Your task to perform on an android device: change keyboard looks Image 0: 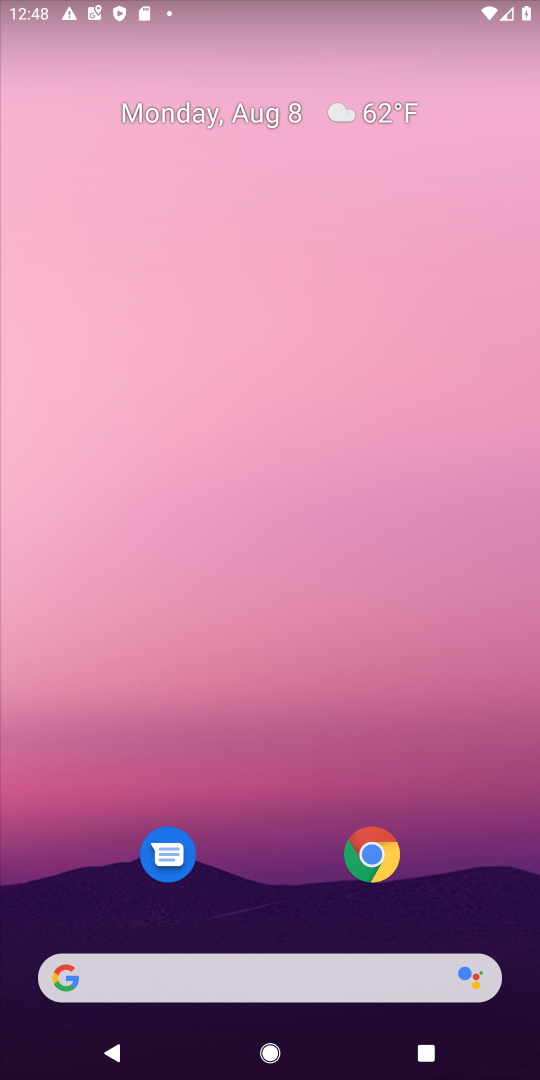
Step 0: press home button
Your task to perform on an android device: change keyboard looks Image 1: 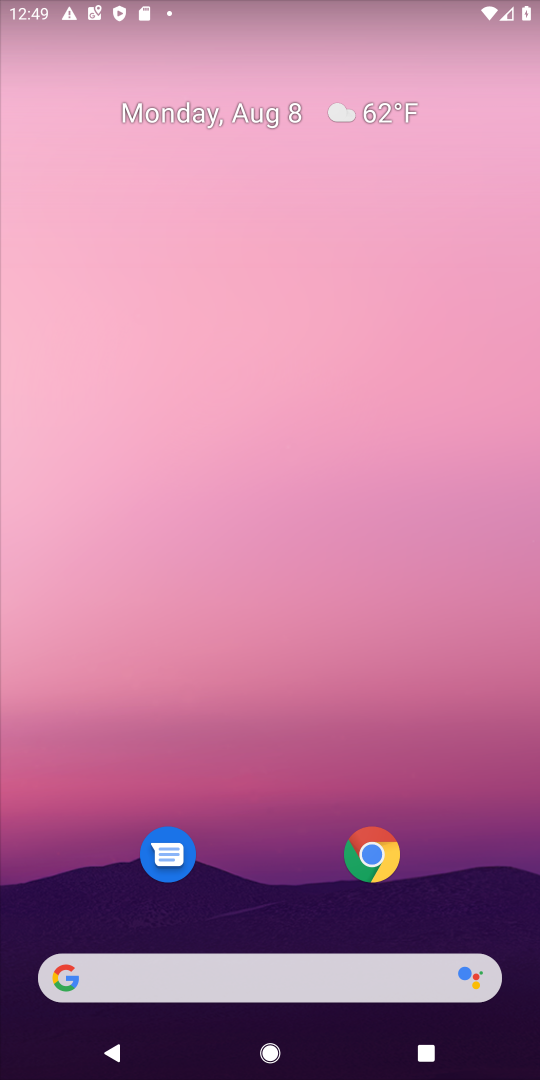
Step 1: drag from (262, 725) to (183, 149)
Your task to perform on an android device: change keyboard looks Image 2: 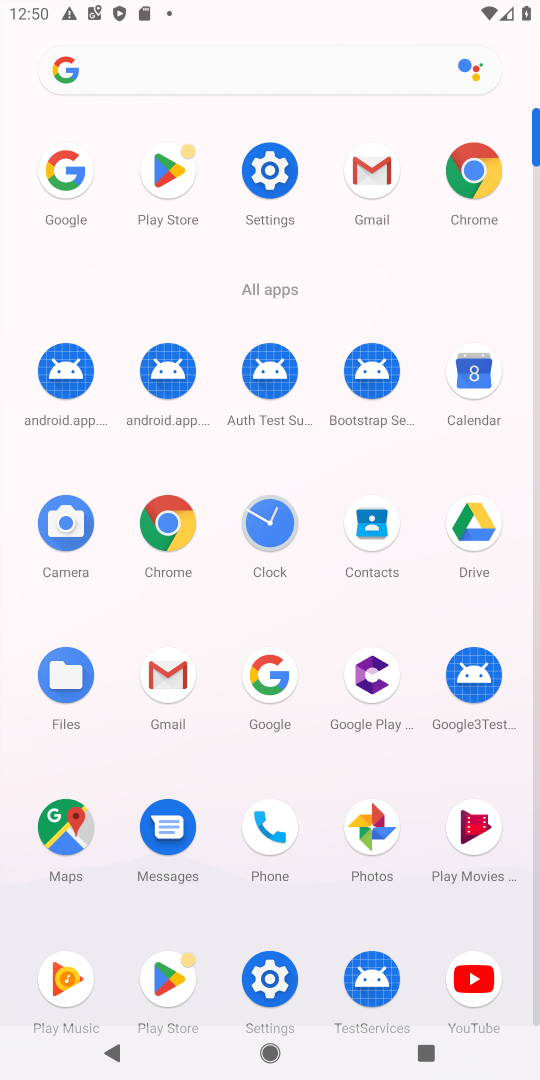
Step 2: click (271, 162)
Your task to perform on an android device: change keyboard looks Image 3: 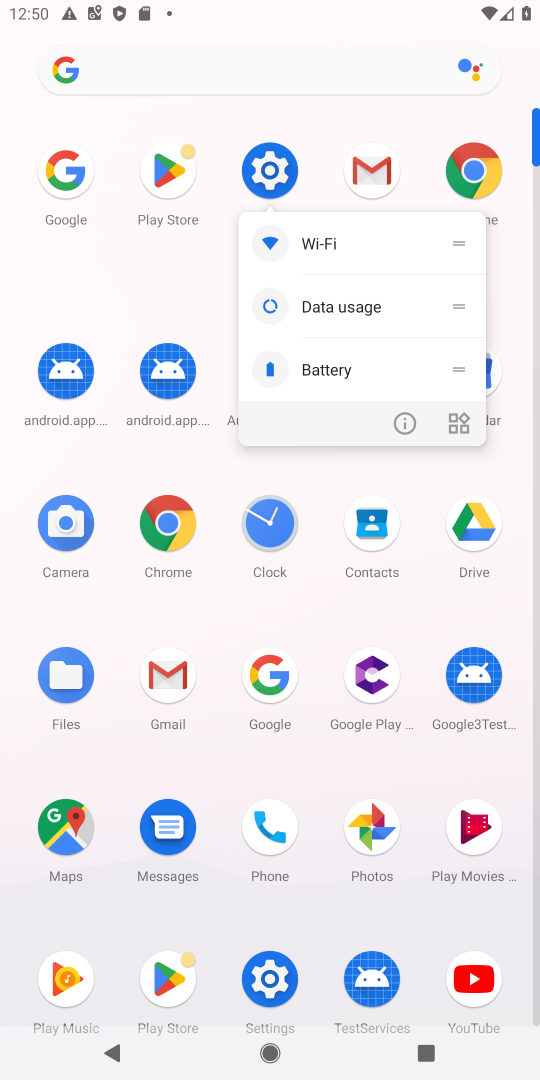
Step 3: click (277, 175)
Your task to perform on an android device: change keyboard looks Image 4: 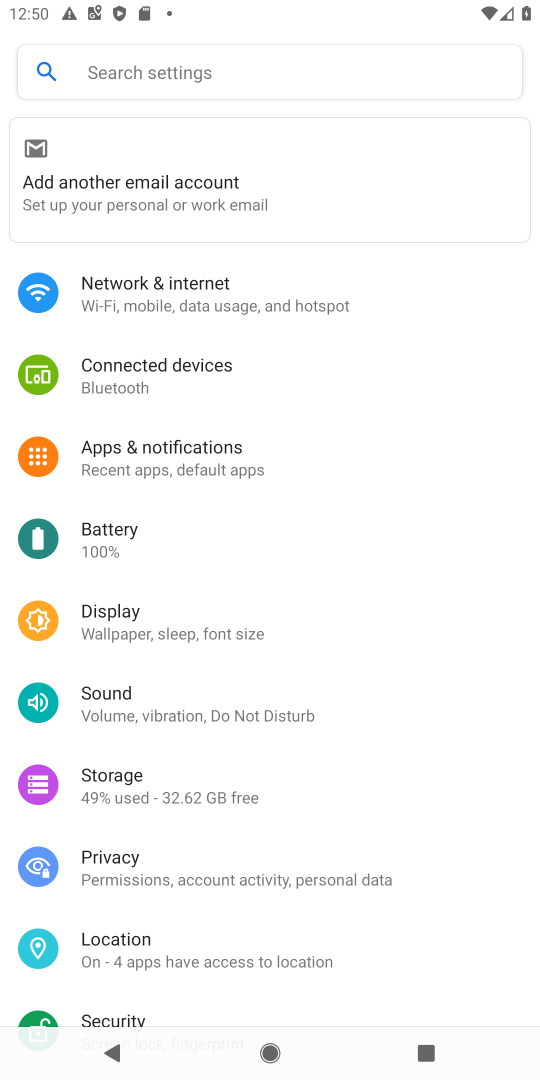
Step 4: drag from (171, 992) to (238, 386)
Your task to perform on an android device: change keyboard looks Image 5: 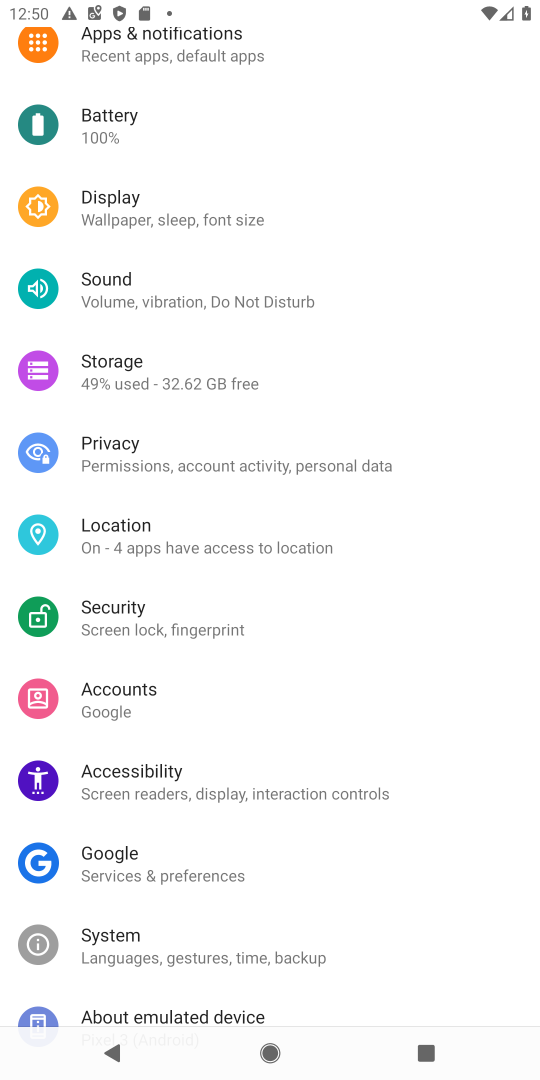
Step 5: click (130, 943)
Your task to perform on an android device: change keyboard looks Image 6: 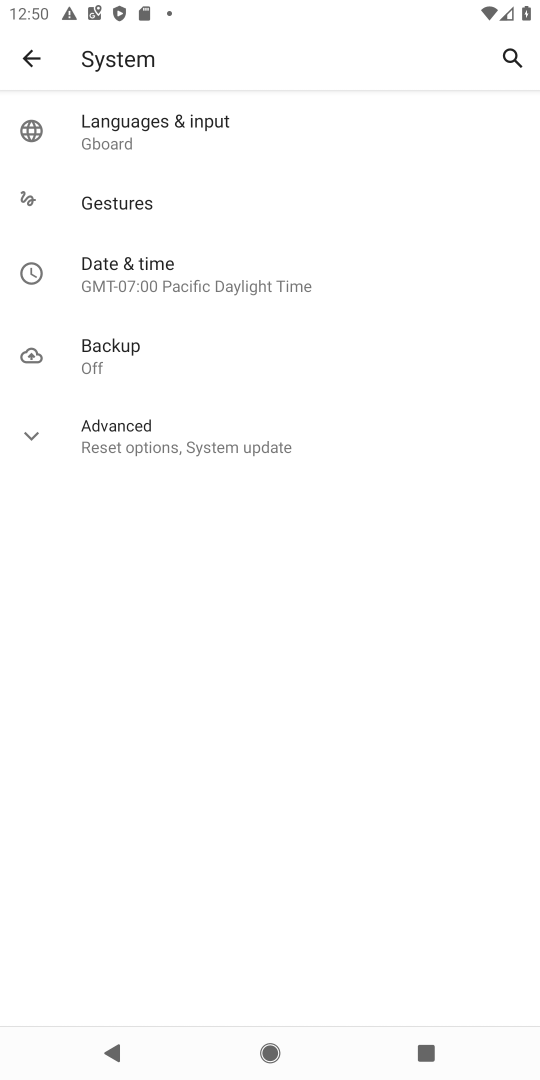
Step 6: click (190, 124)
Your task to perform on an android device: change keyboard looks Image 7: 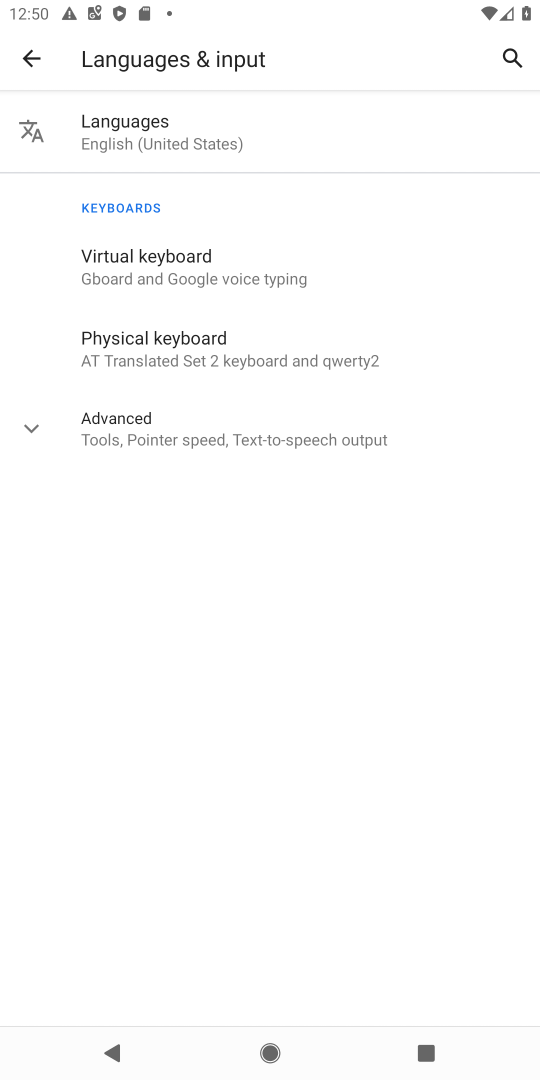
Step 7: click (153, 258)
Your task to perform on an android device: change keyboard looks Image 8: 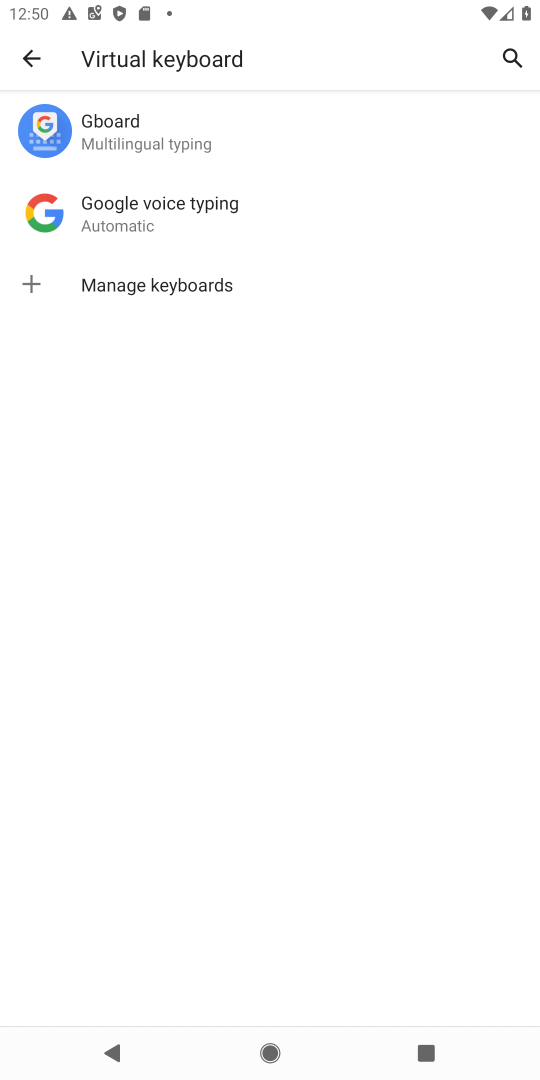
Step 8: click (150, 125)
Your task to perform on an android device: change keyboard looks Image 9: 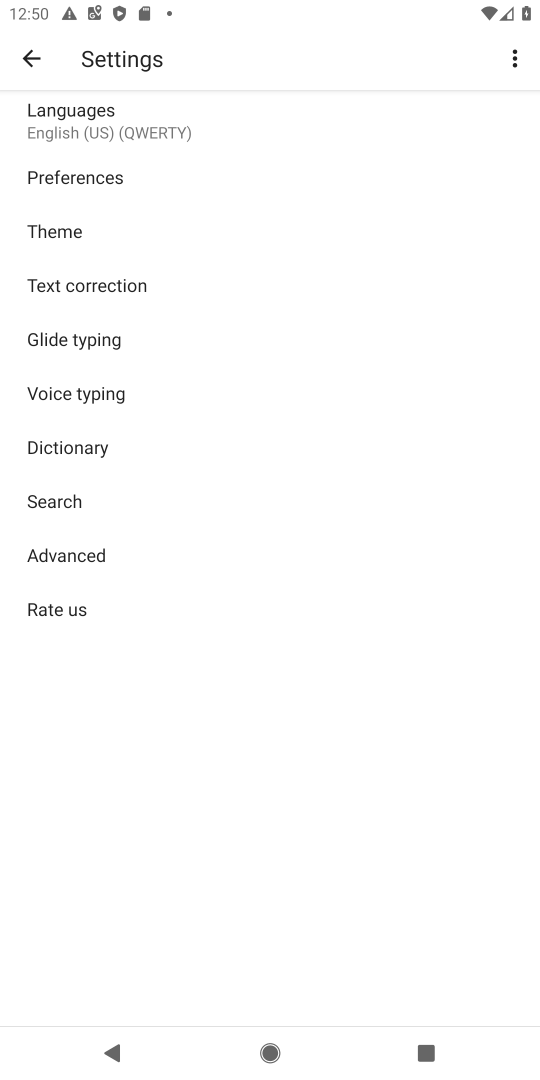
Step 9: click (58, 229)
Your task to perform on an android device: change keyboard looks Image 10: 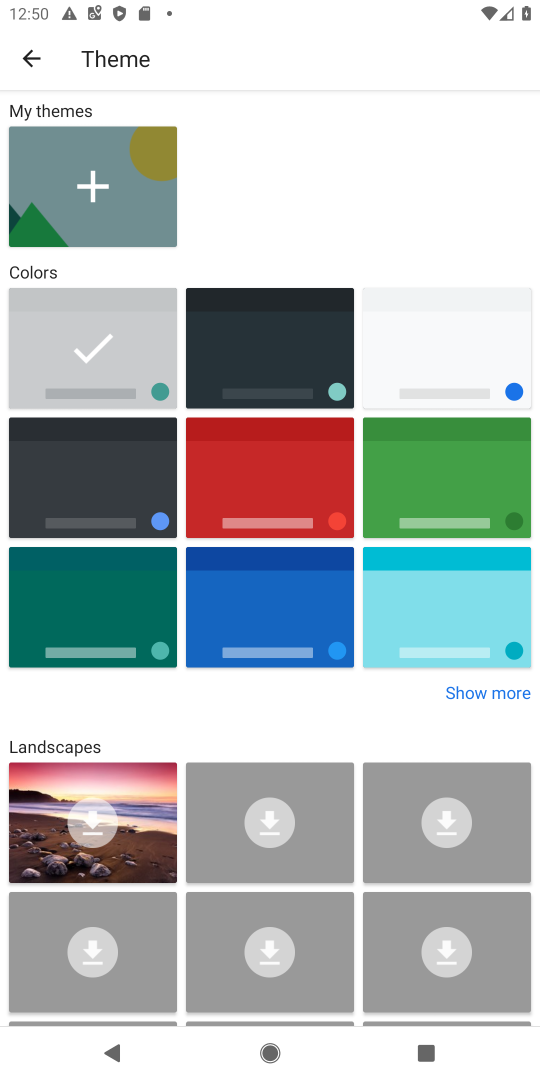
Step 10: click (309, 478)
Your task to perform on an android device: change keyboard looks Image 11: 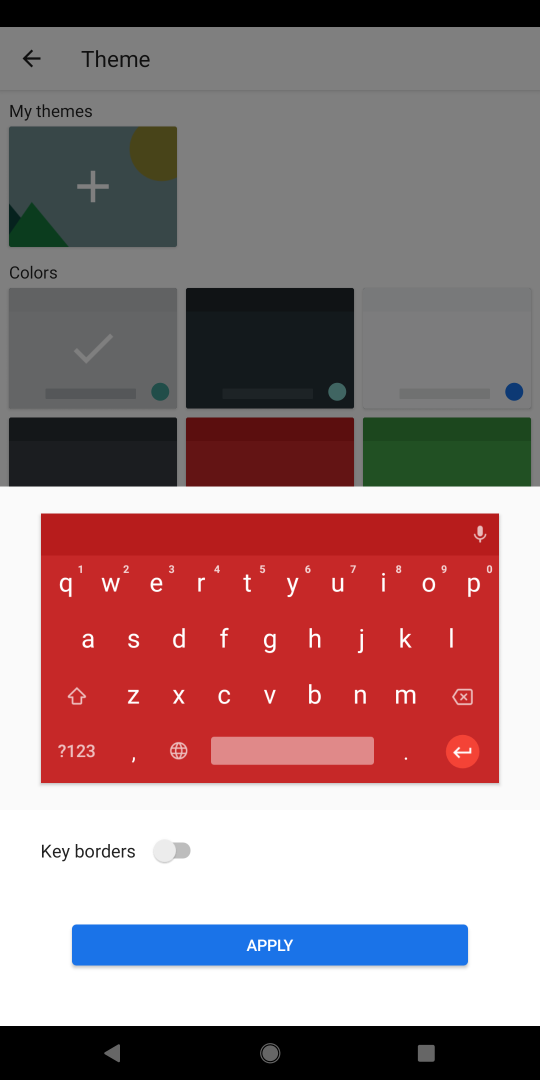
Step 11: click (285, 947)
Your task to perform on an android device: change keyboard looks Image 12: 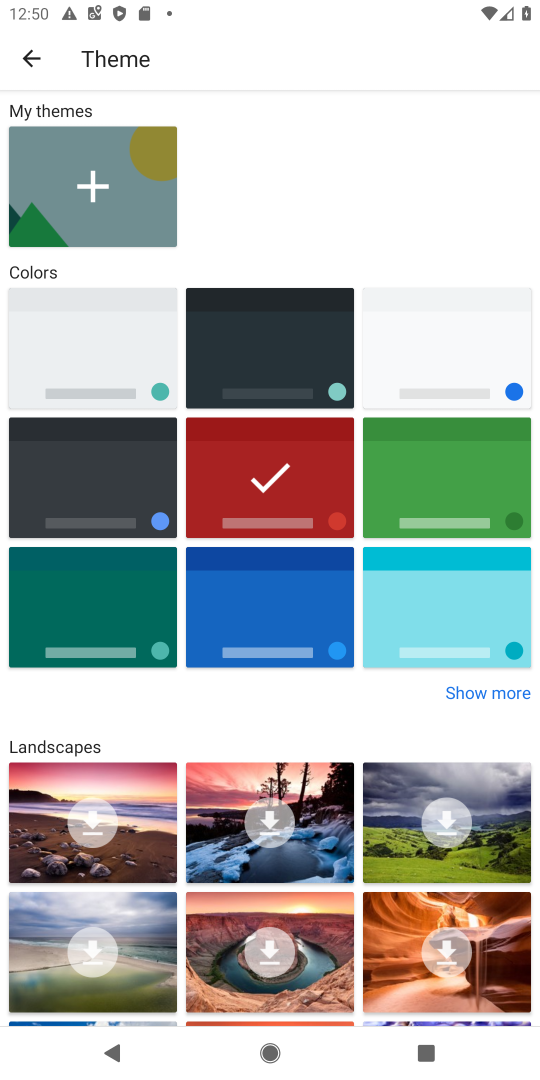
Step 12: task complete